Your task to perform on an android device: open the mobile data screen to see how much data has been used Image 0: 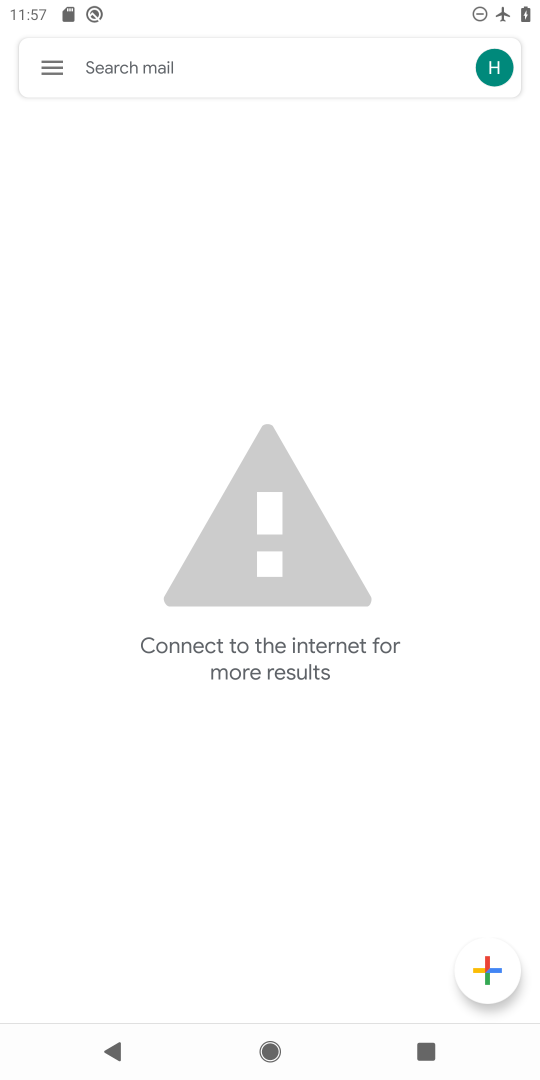
Step 0: press home button
Your task to perform on an android device: open the mobile data screen to see how much data has been used Image 1: 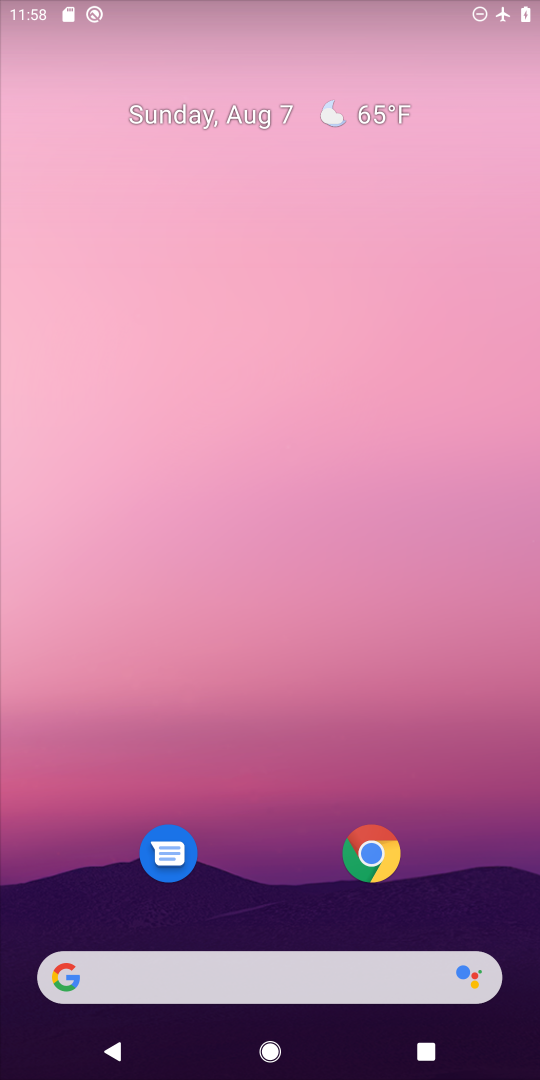
Step 1: drag from (217, 991) to (347, 92)
Your task to perform on an android device: open the mobile data screen to see how much data has been used Image 2: 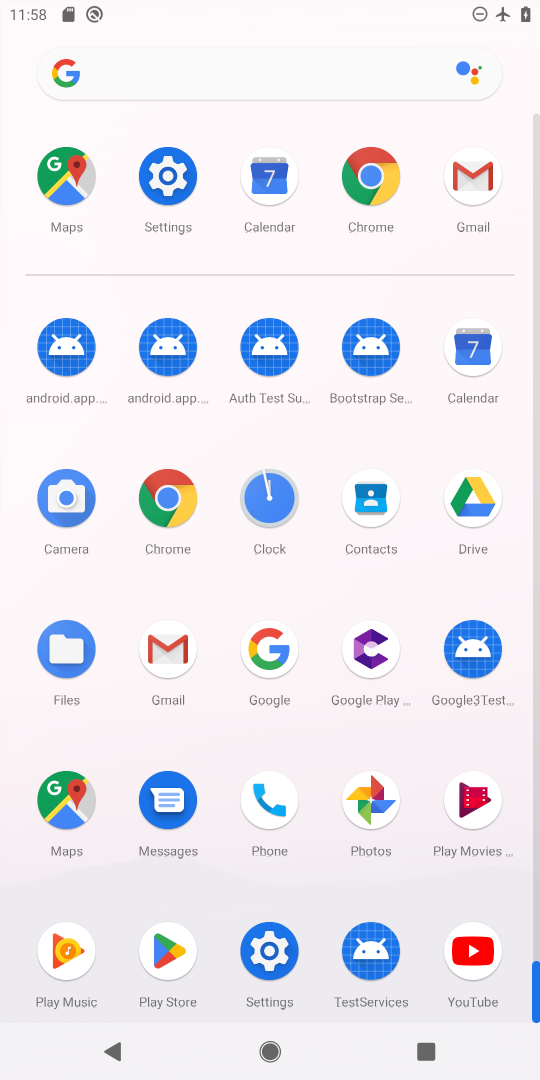
Step 2: click (166, 154)
Your task to perform on an android device: open the mobile data screen to see how much data has been used Image 3: 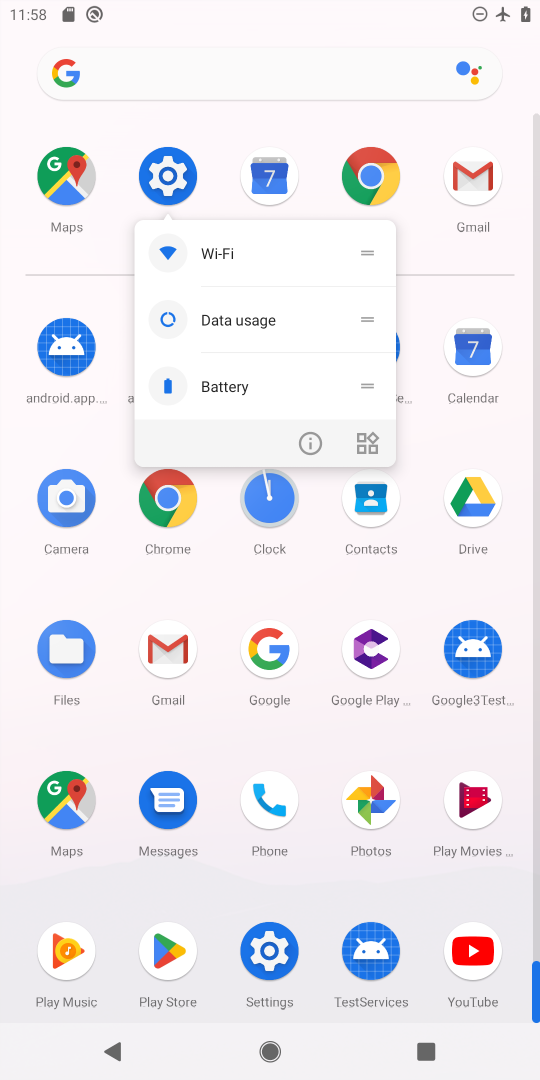
Step 3: click (177, 169)
Your task to perform on an android device: open the mobile data screen to see how much data has been used Image 4: 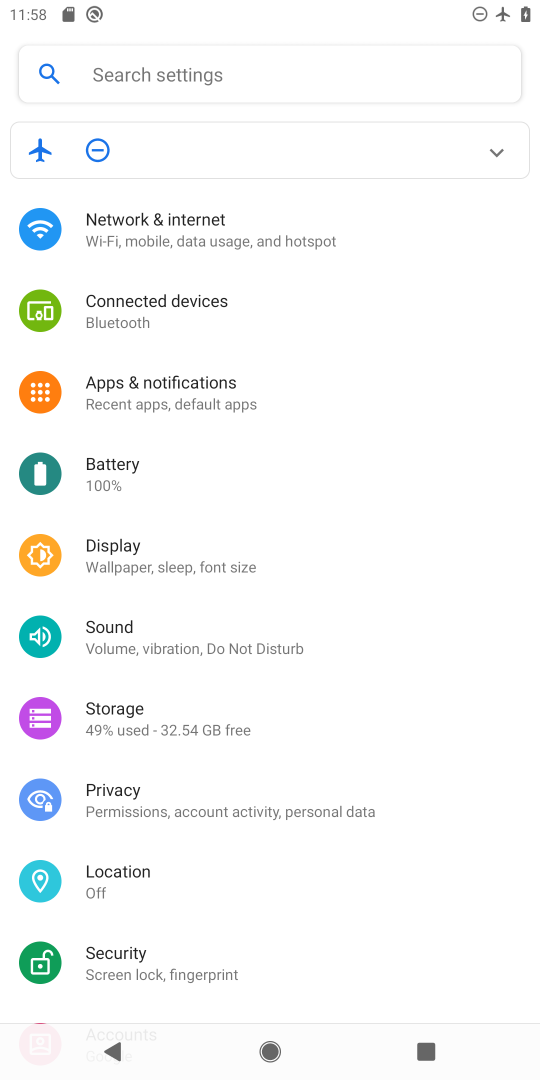
Step 4: click (208, 221)
Your task to perform on an android device: open the mobile data screen to see how much data has been used Image 5: 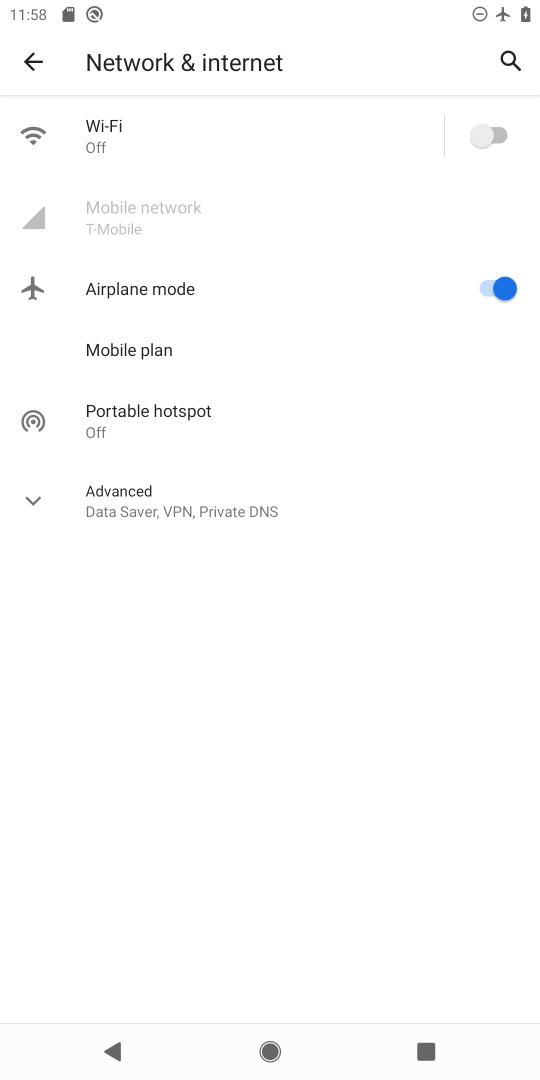
Step 5: click (138, 195)
Your task to perform on an android device: open the mobile data screen to see how much data has been used Image 6: 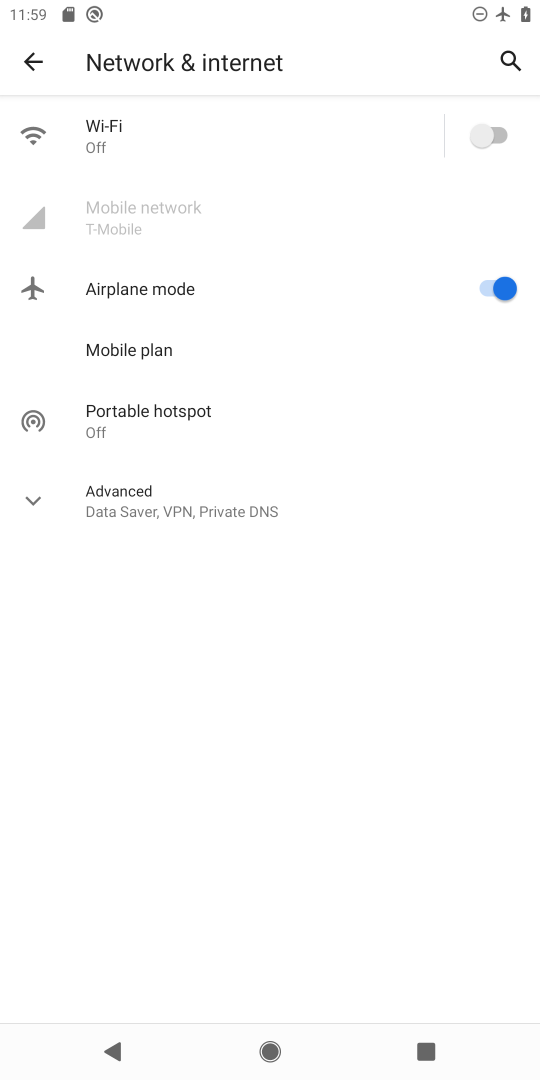
Step 6: task complete